Your task to perform on an android device: uninstall "Life360: Find Family & Friends" Image 0: 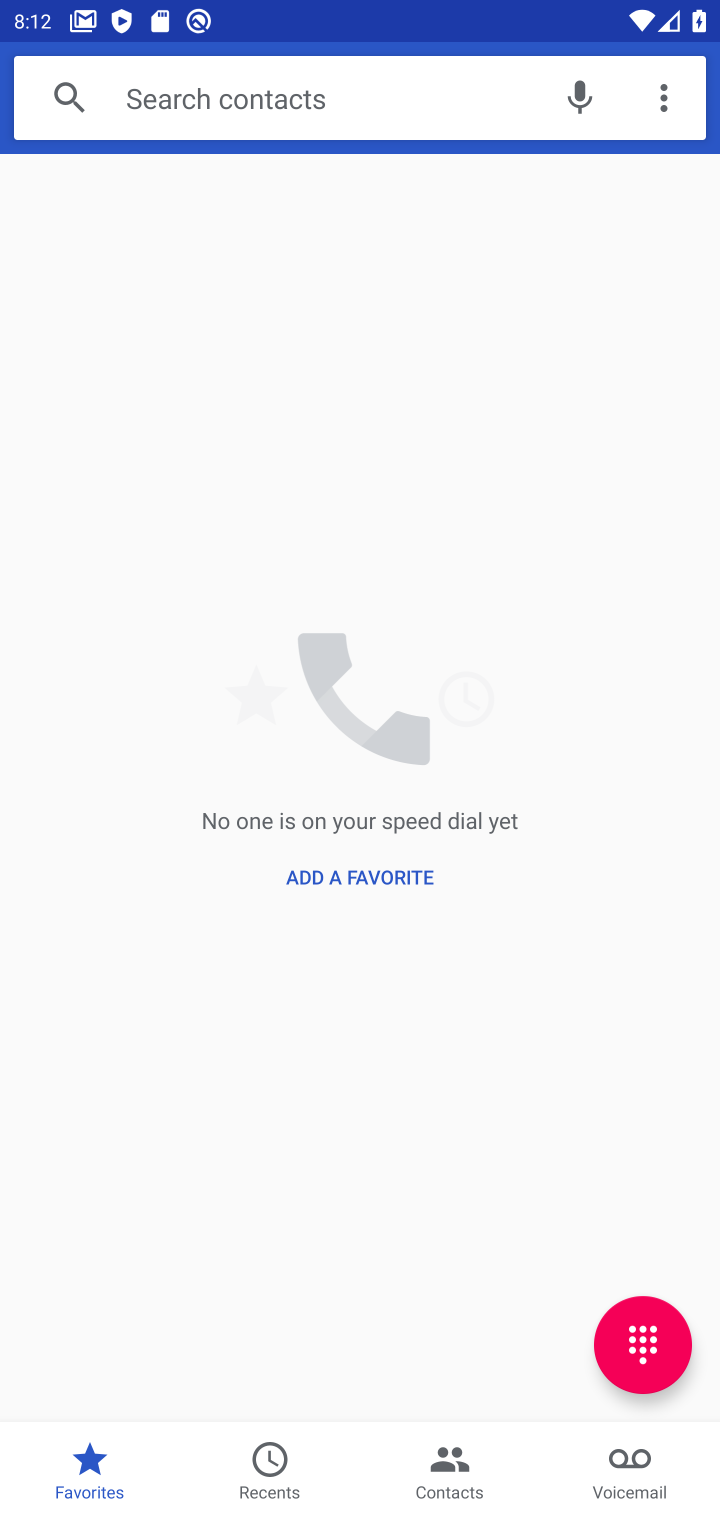
Step 0: press home button
Your task to perform on an android device: uninstall "Life360: Find Family & Friends" Image 1: 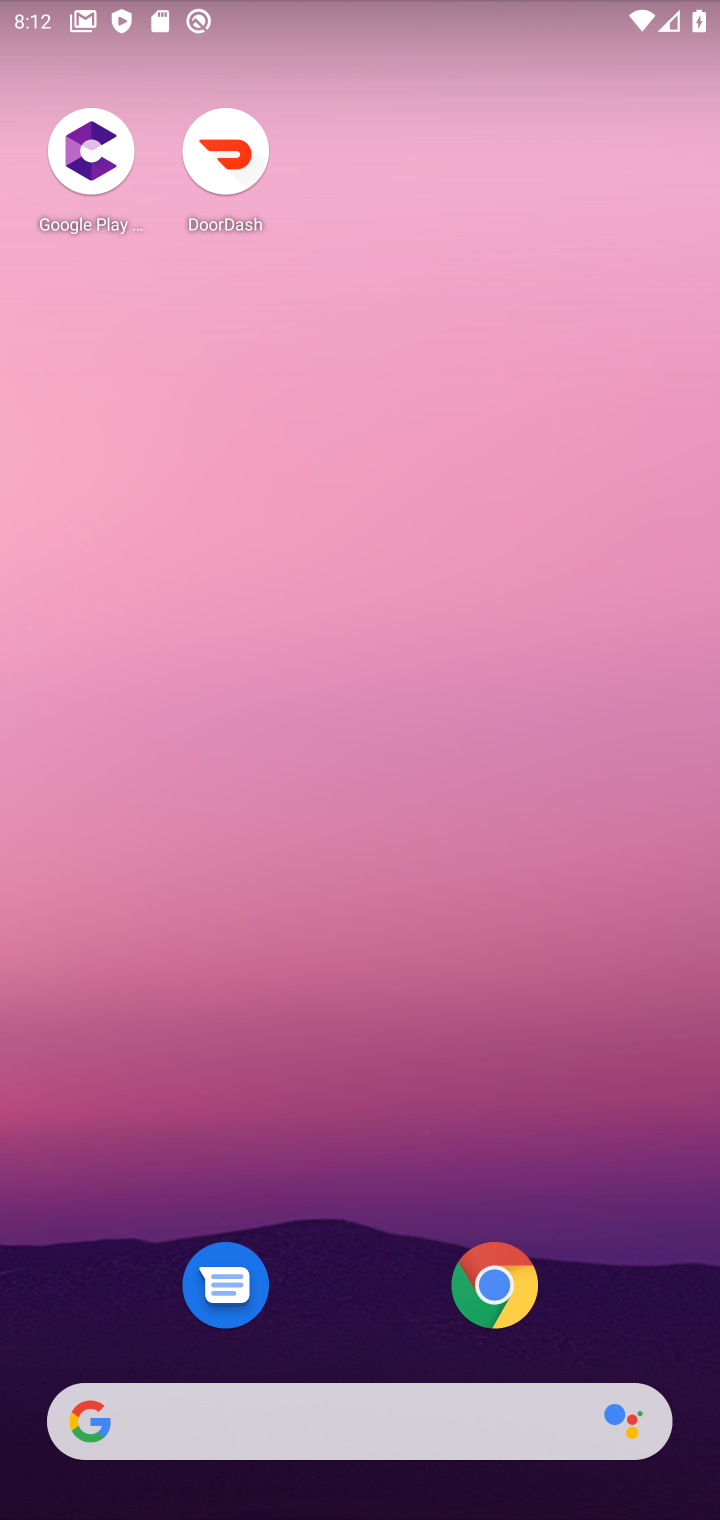
Step 1: drag from (388, 1129) to (367, 136)
Your task to perform on an android device: uninstall "Life360: Find Family & Friends" Image 2: 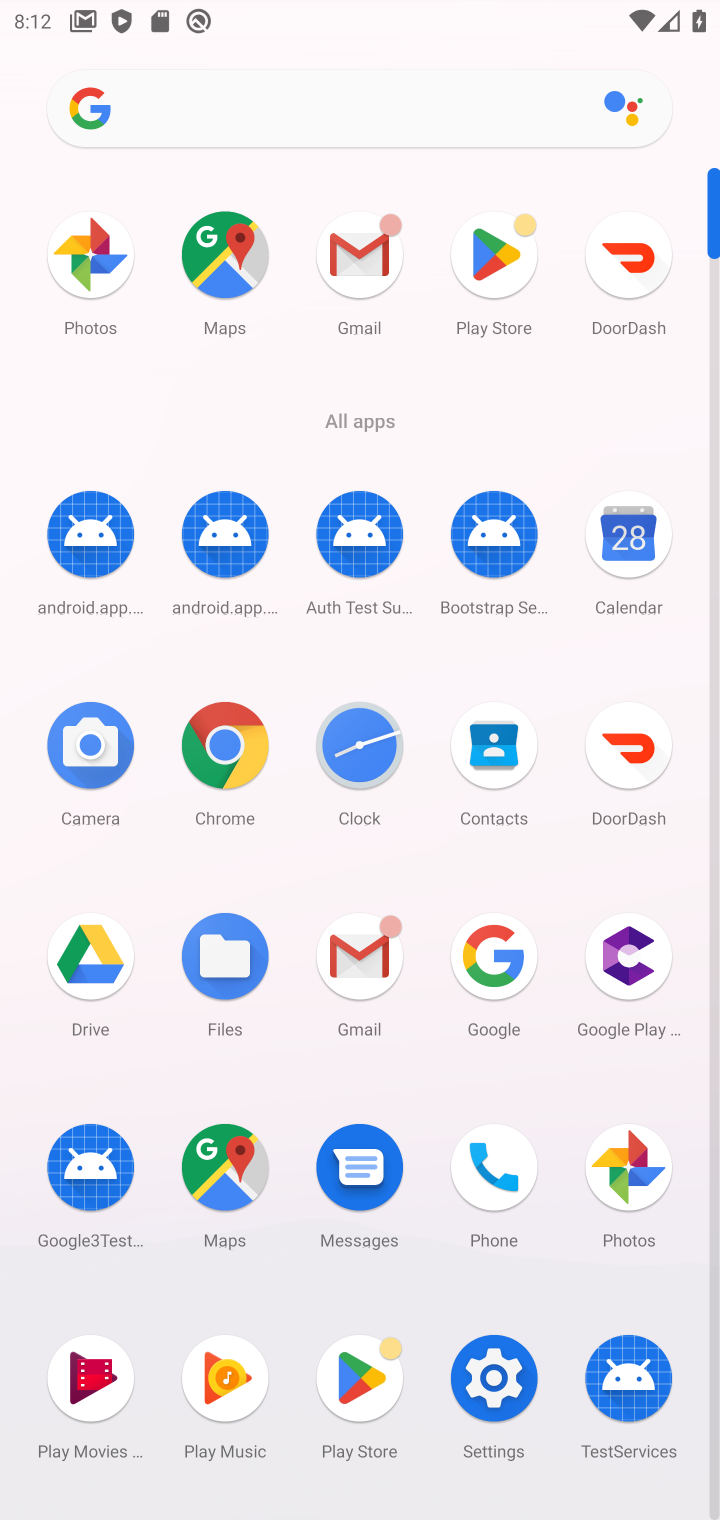
Step 2: click (492, 251)
Your task to perform on an android device: uninstall "Life360: Find Family & Friends" Image 3: 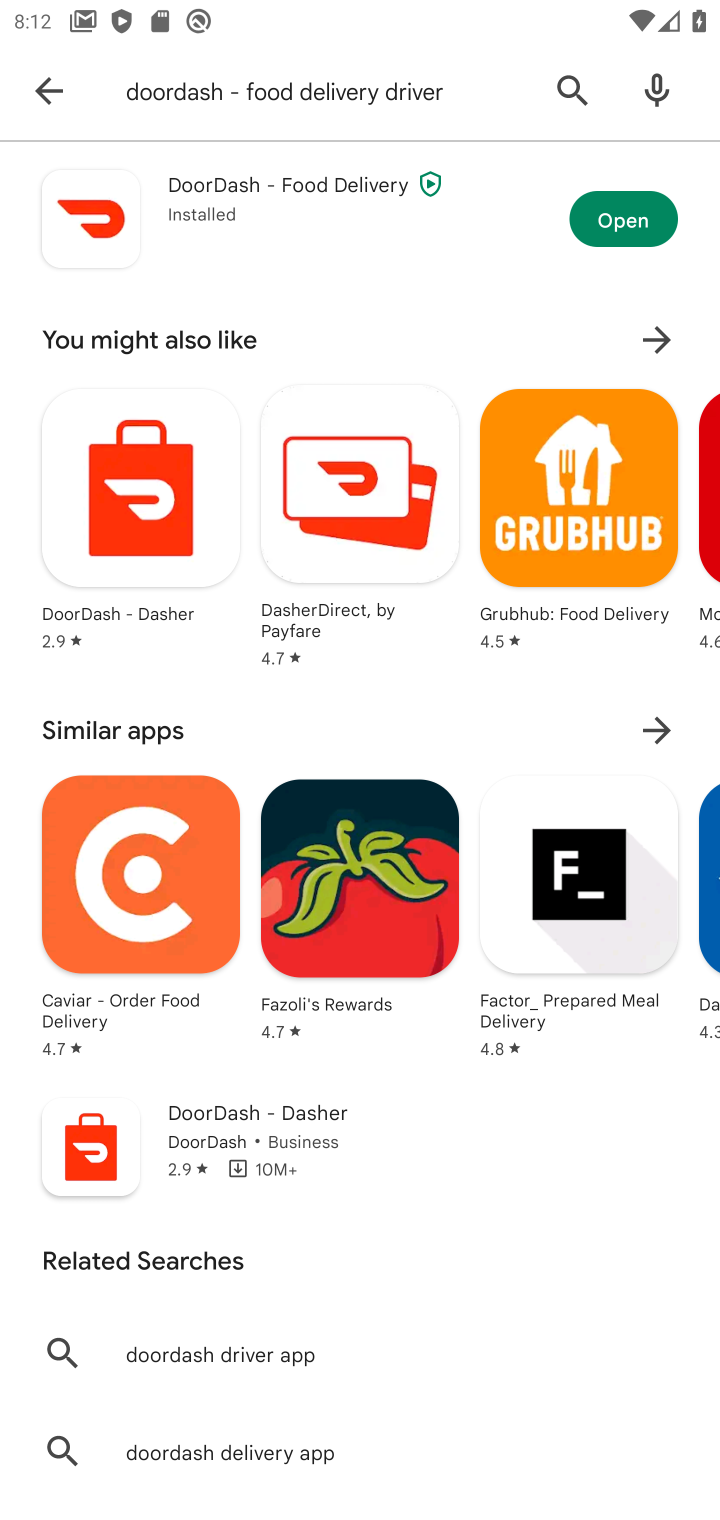
Step 3: click (556, 95)
Your task to perform on an android device: uninstall "Life360: Find Family & Friends" Image 4: 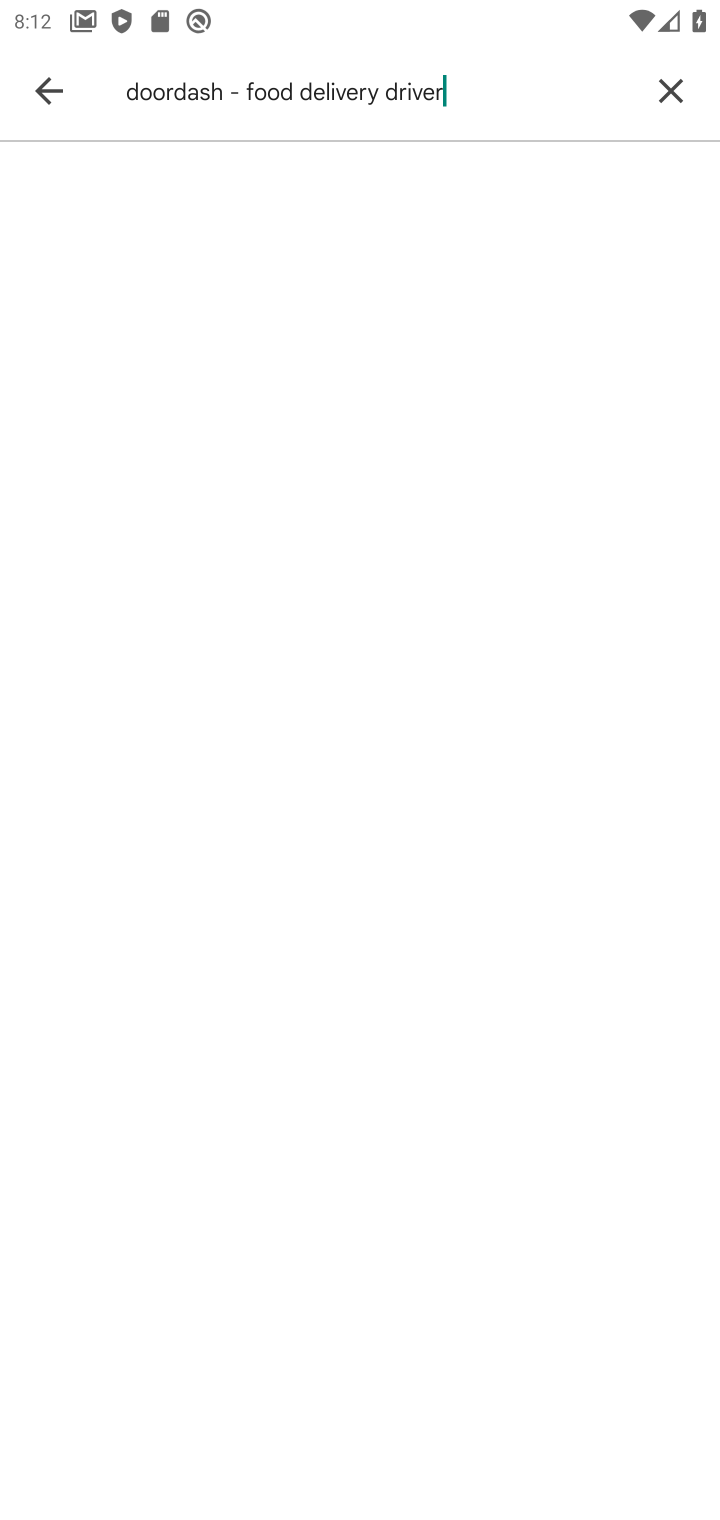
Step 4: click (674, 92)
Your task to perform on an android device: uninstall "Life360: Find Family & Friends" Image 5: 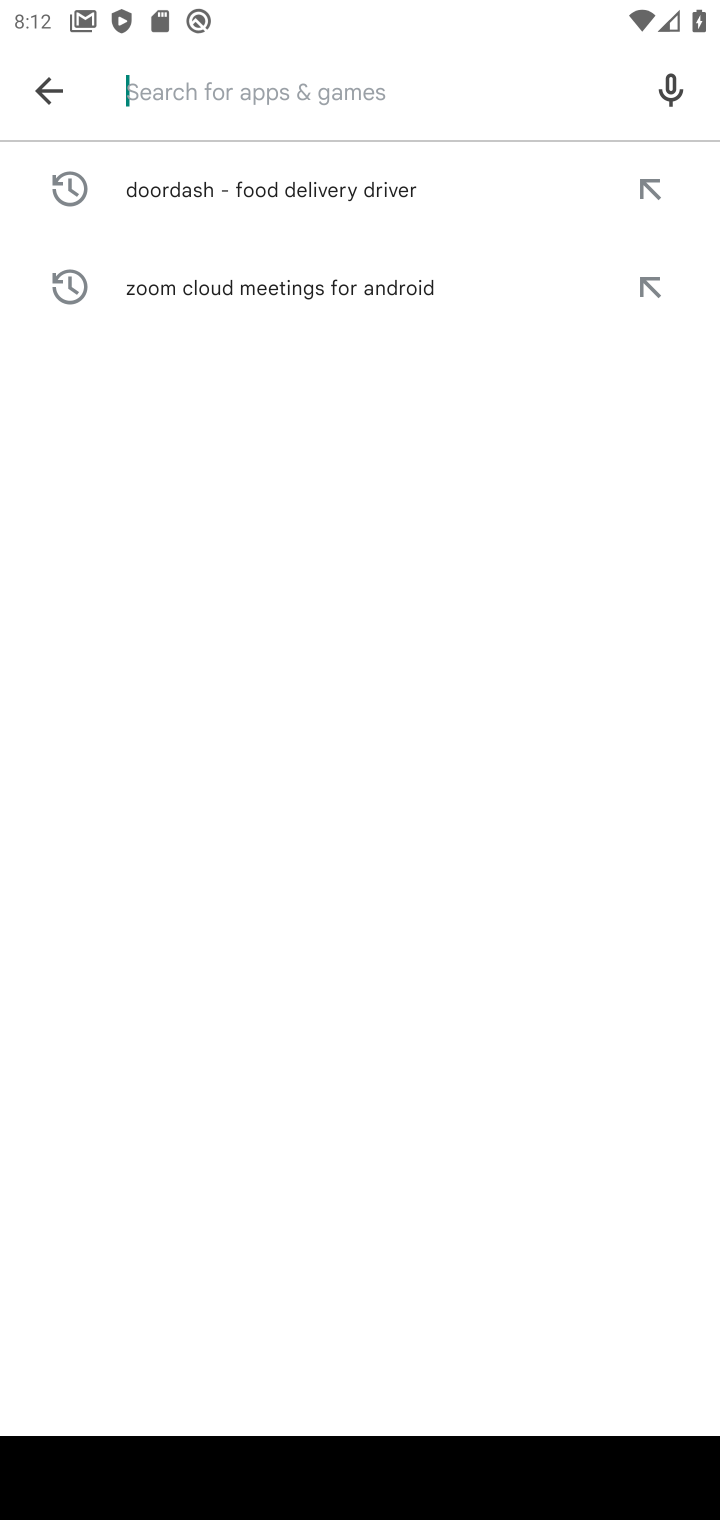
Step 5: type "Life360: Find Family & Friends"
Your task to perform on an android device: uninstall "Life360: Find Family & Friends" Image 6: 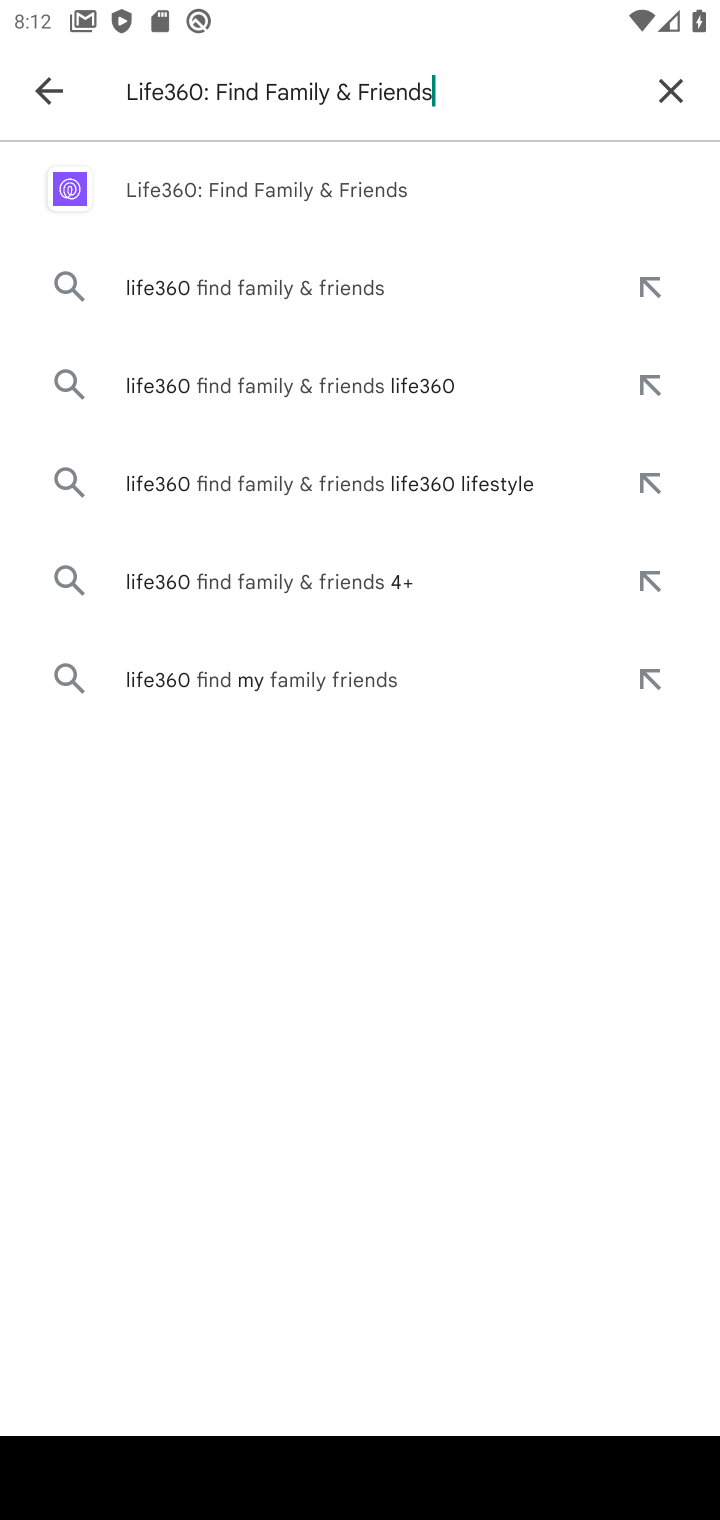
Step 6: click (292, 186)
Your task to perform on an android device: uninstall "Life360: Find Family & Friends" Image 7: 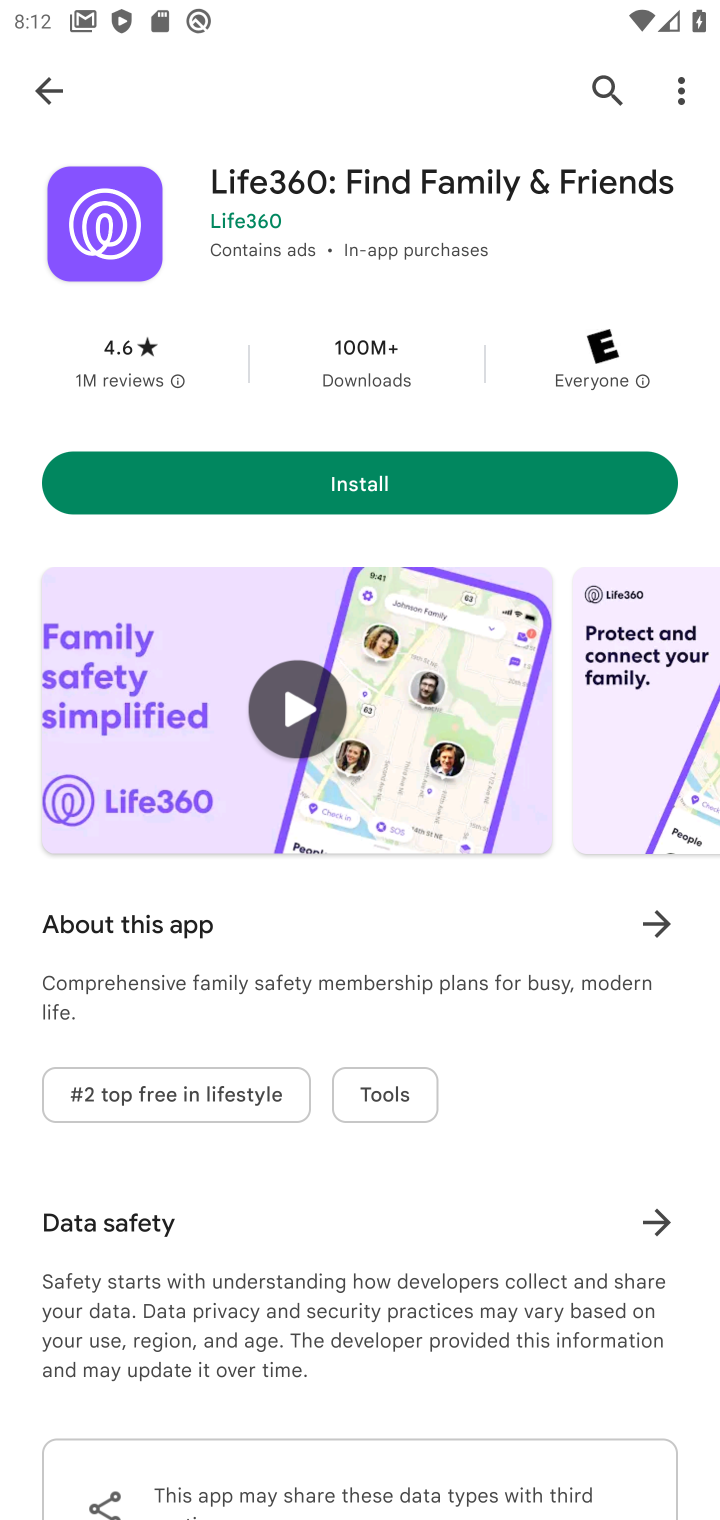
Step 7: task complete